Your task to perform on an android device: Do I have any events tomorrow? Image 0: 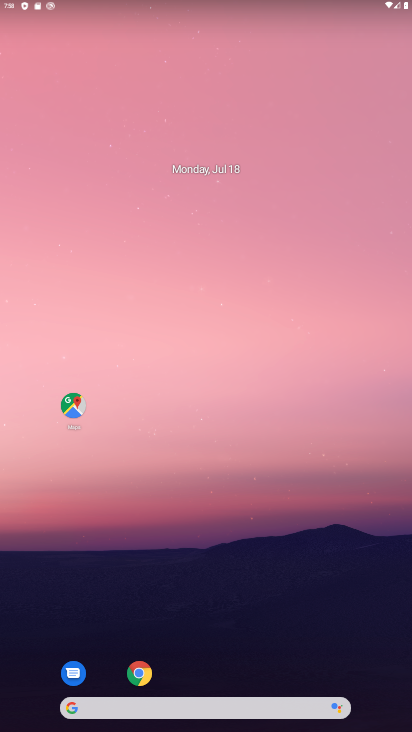
Step 0: drag from (174, 594) to (161, 201)
Your task to perform on an android device: Do I have any events tomorrow? Image 1: 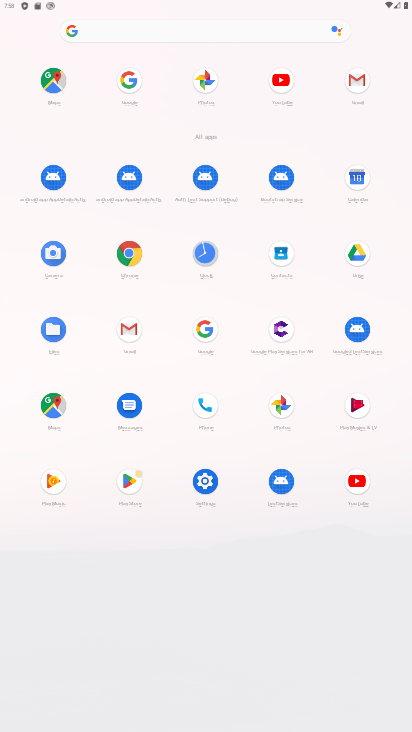
Step 1: click (351, 197)
Your task to perform on an android device: Do I have any events tomorrow? Image 2: 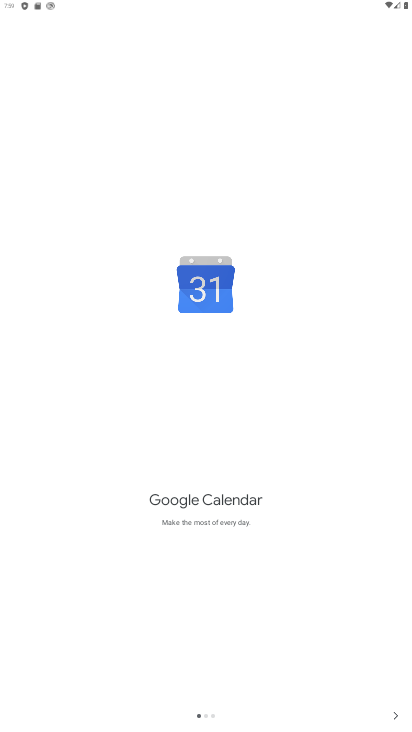
Step 2: click (398, 718)
Your task to perform on an android device: Do I have any events tomorrow? Image 3: 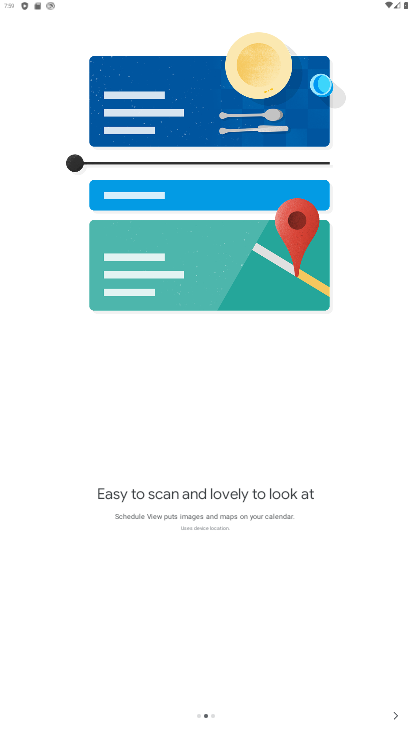
Step 3: click (398, 718)
Your task to perform on an android device: Do I have any events tomorrow? Image 4: 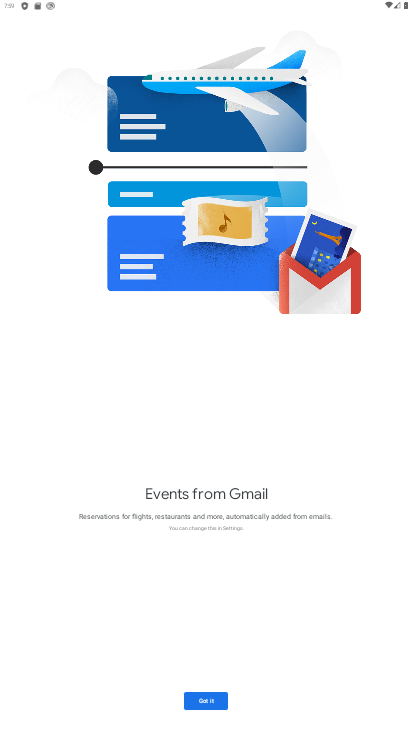
Step 4: click (213, 698)
Your task to perform on an android device: Do I have any events tomorrow? Image 5: 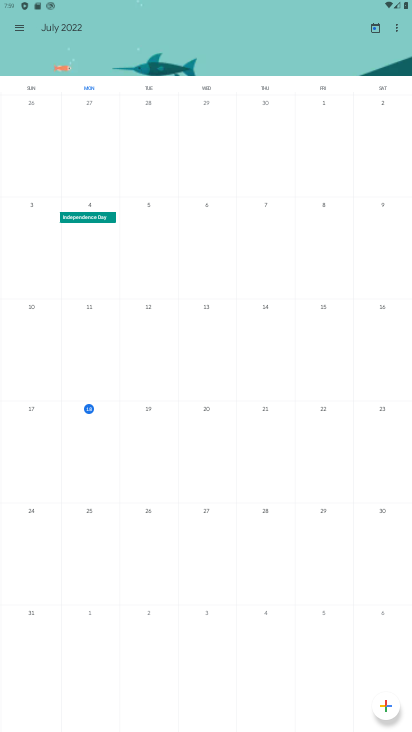
Step 5: click (151, 409)
Your task to perform on an android device: Do I have any events tomorrow? Image 6: 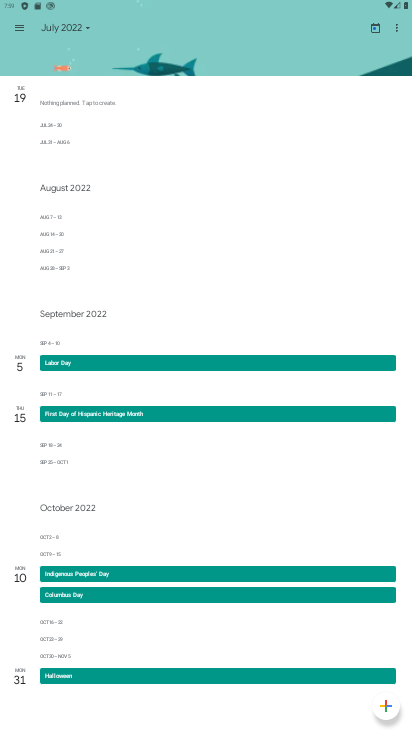
Step 6: task complete